Your task to perform on an android device: toggle priority inbox in the gmail app Image 0: 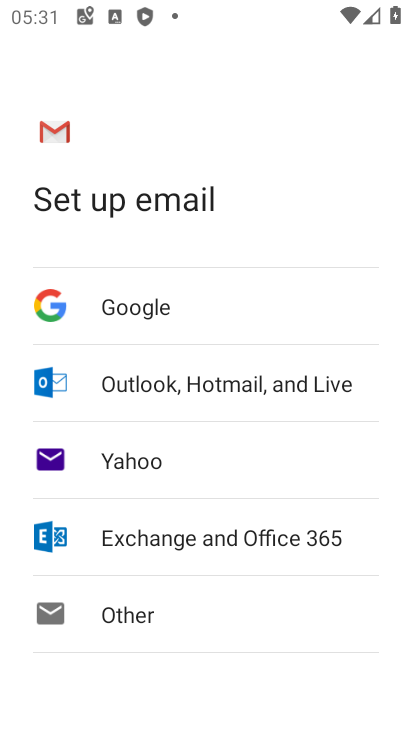
Step 0: press home button
Your task to perform on an android device: toggle priority inbox in the gmail app Image 1: 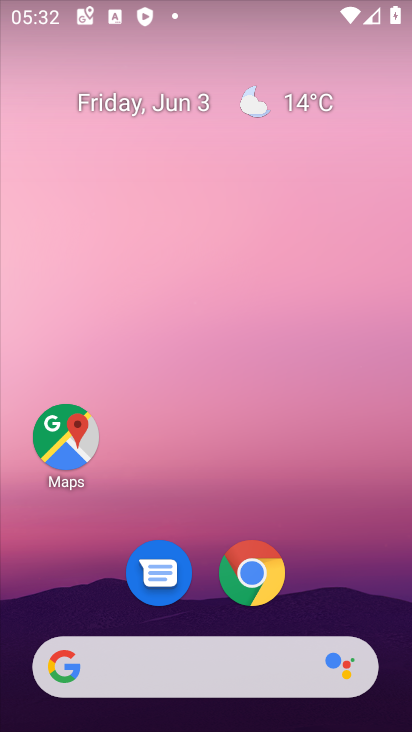
Step 1: drag from (229, 619) to (268, 119)
Your task to perform on an android device: toggle priority inbox in the gmail app Image 2: 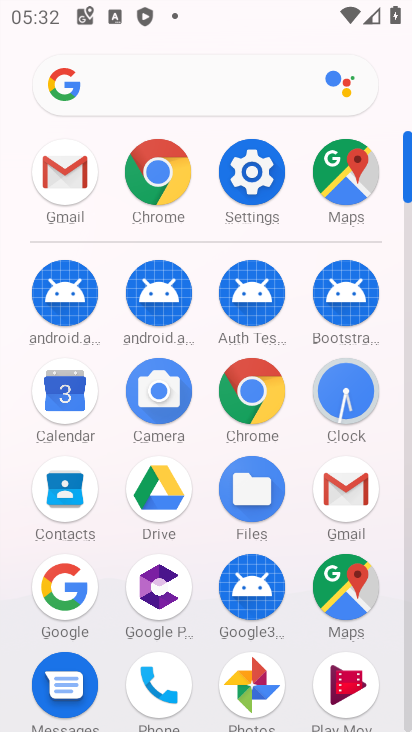
Step 2: click (346, 459)
Your task to perform on an android device: toggle priority inbox in the gmail app Image 3: 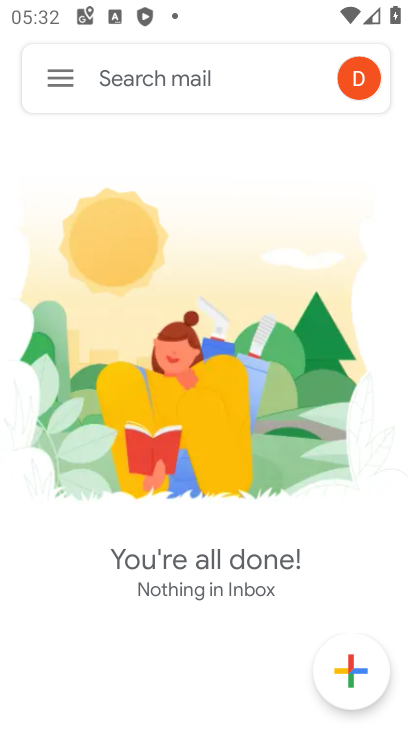
Step 3: click (66, 59)
Your task to perform on an android device: toggle priority inbox in the gmail app Image 4: 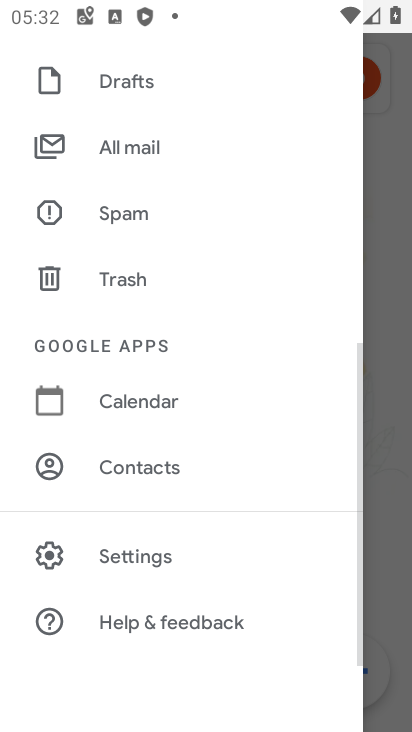
Step 4: click (176, 556)
Your task to perform on an android device: toggle priority inbox in the gmail app Image 5: 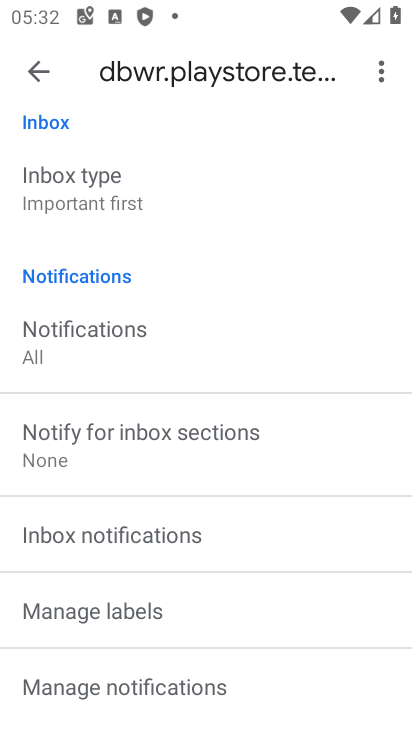
Step 5: click (140, 176)
Your task to perform on an android device: toggle priority inbox in the gmail app Image 6: 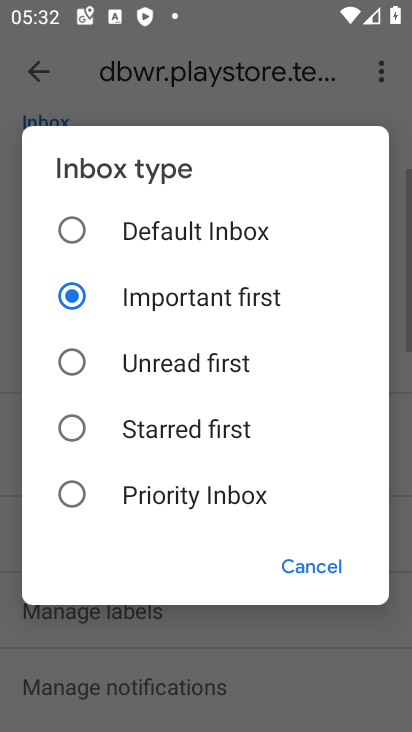
Step 6: click (64, 479)
Your task to perform on an android device: toggle priority inbox in the gmail app Image 7: 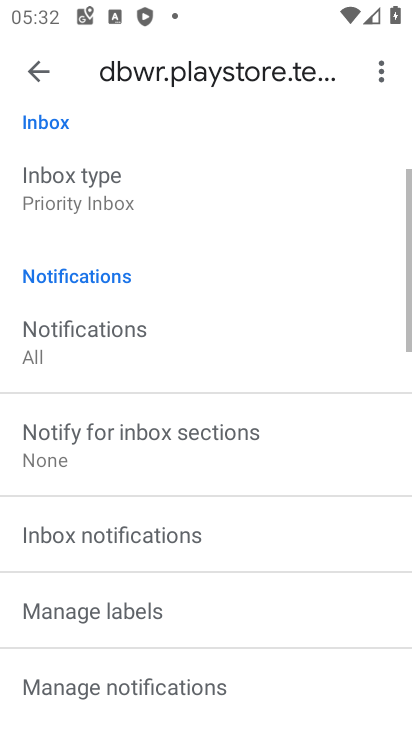
Step 7: task complete